Your task to perform on an android device: Do I have any events this weekend? Image 0: 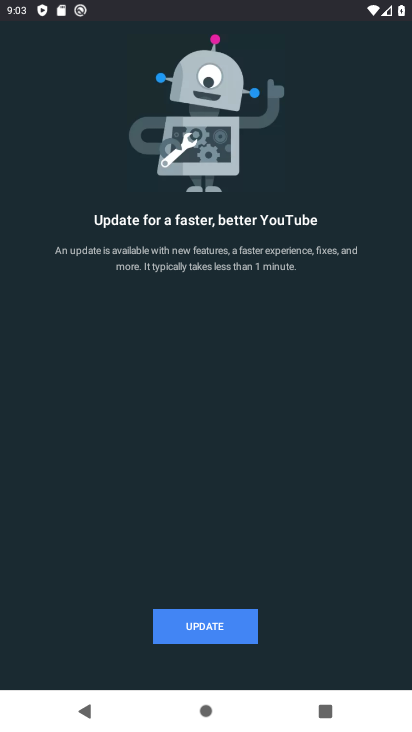
Step 0: press home button
Your task to perform on an android device: Do I have any events this weekend? Image 1: 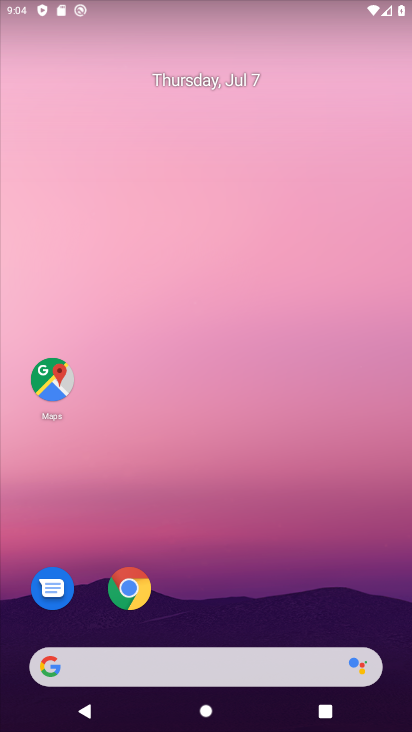
Step 1: click (190, 81)
Your task to perform on an android device: Do I have any events this weekend? Image 2: 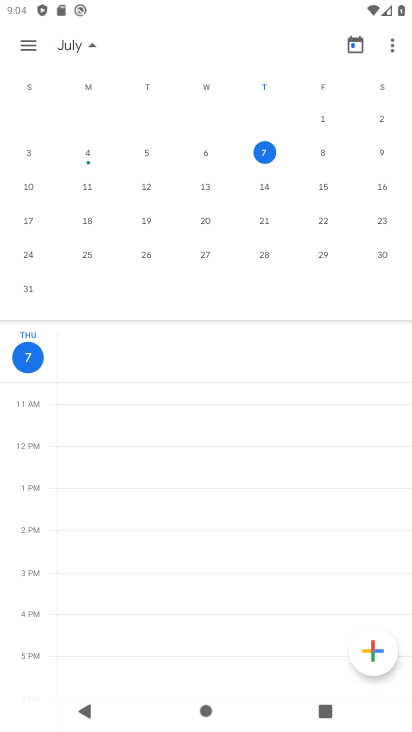
Step 2: click (390, 154)
Your task to perform on an android device: Do I have any events this weekend? Image 3: 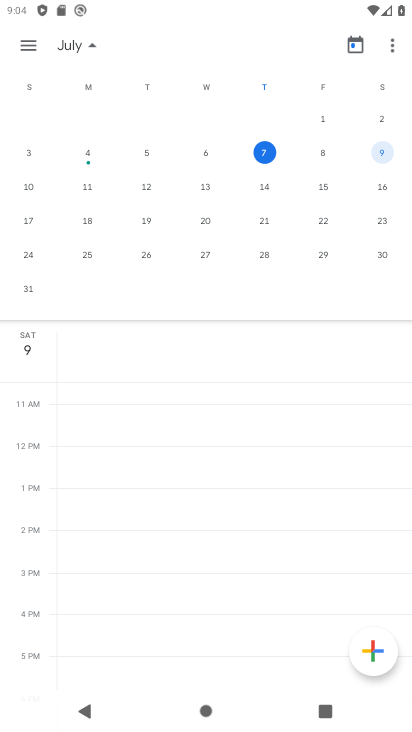
Step 3: task complete